Your task to perform on an android device: turn off wifi Image 0: 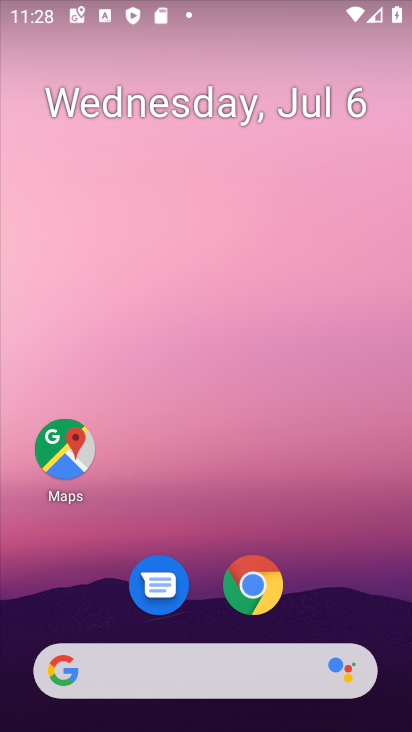
Step 0: click (263, 589)
Your task to perform on an android device: turn off wifi Image 1: 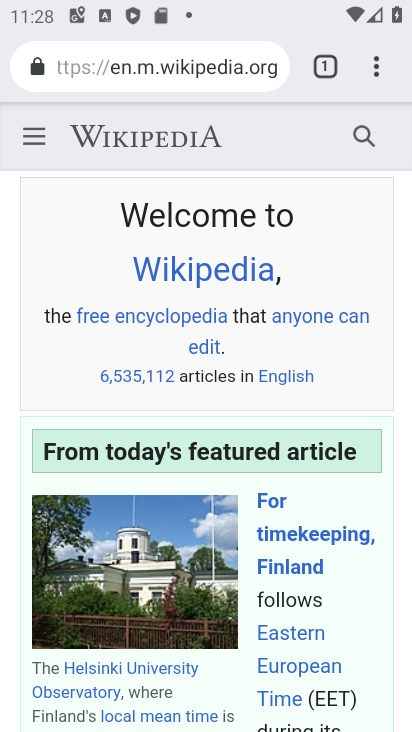
Step 1: click (376, 64)
Your task to perform on an android device: turn off wifi Image 2: 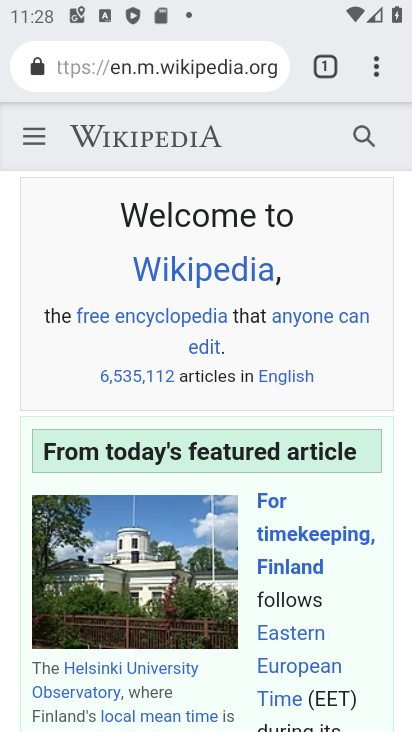
Step 2: click (376, 64)
Your task to perform on an android device: turn off wifi Image 3: 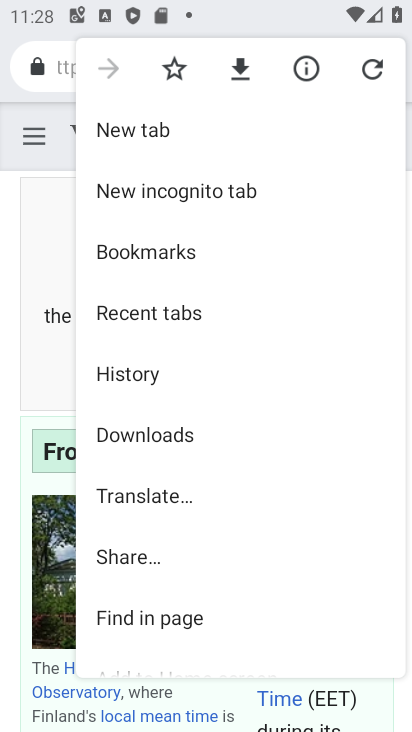
Step 3: click (262, 132)
Your task to perform on an android device: turn off wifi Image 4: 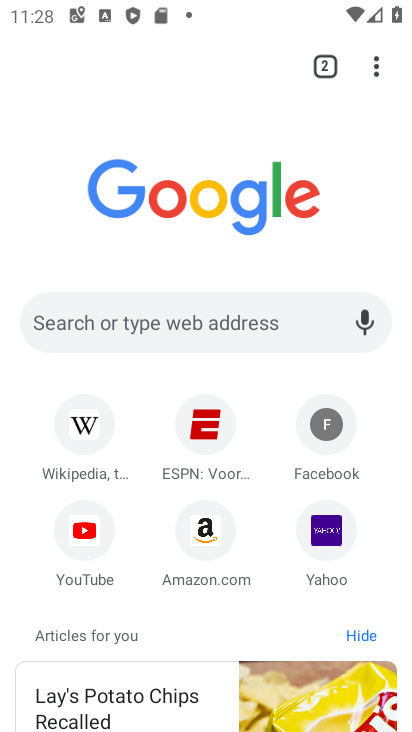
Step 4: click (198, 524)
Your task to perform on an android device: turn off wifi Image 5: 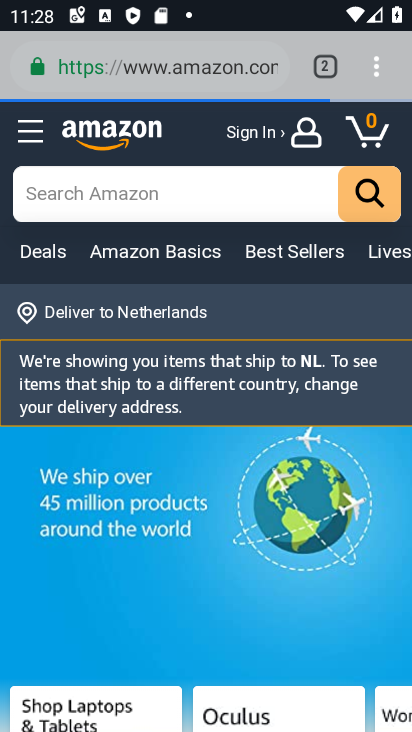
Step 5: task complete